Your task to perform on an android device: delete the emails in spam in the gmail app Image 0: 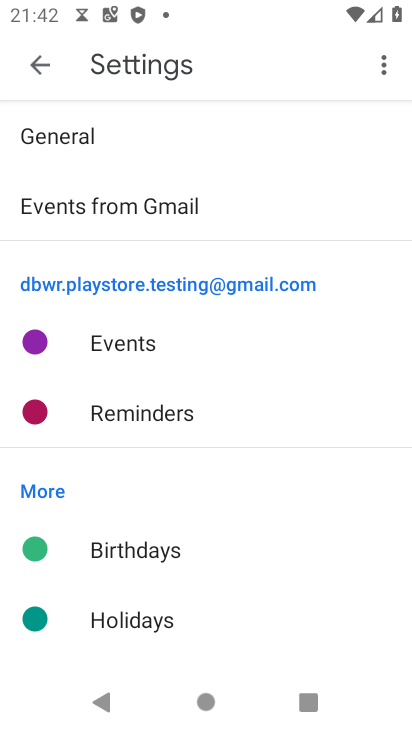
Step 0: press home button
Your task to perform on an android device: delete the emails in spam in the gmail app Image 1: 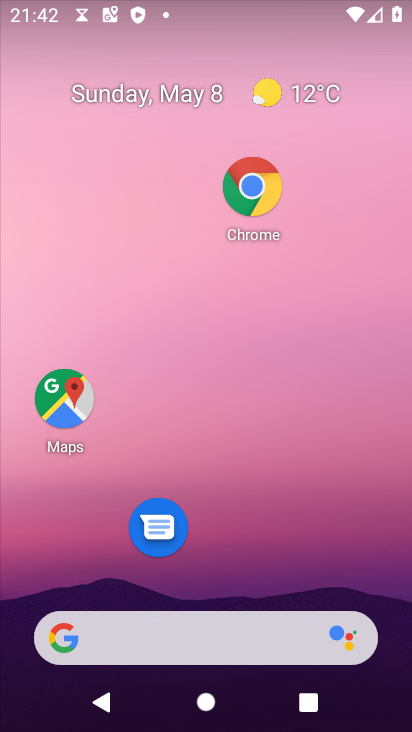
Step 1: drag from (261, 562) to (283, 211)
Your task to perform on an android device: delete the emails in spam in the gmail app Image 2: 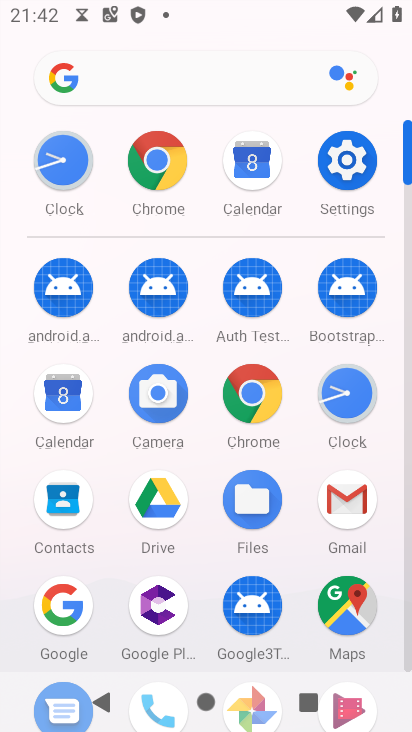
Step 2: click (343, 499)
Your task to perform on an android device: delete the emails in spam in the gmail app Image 3: 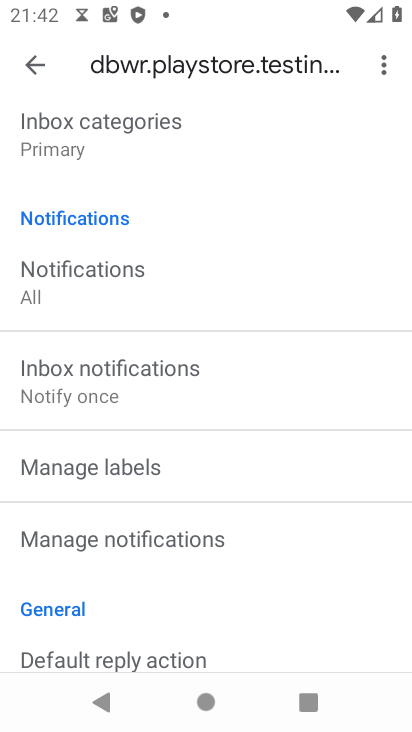
Step 3: click (30, 62)
Your task to perform on an android device: delete the emails in spam in the gmail app Image 4: 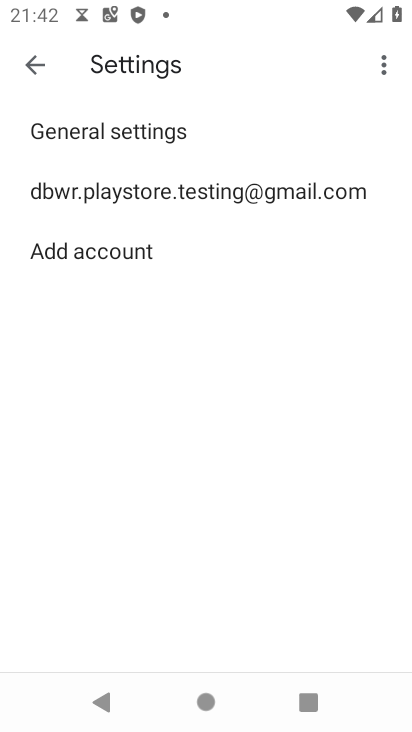
Step 4: click (30, 62)
Your task to perform on an android device: delete the emails in spam in the gmail app Image 5: 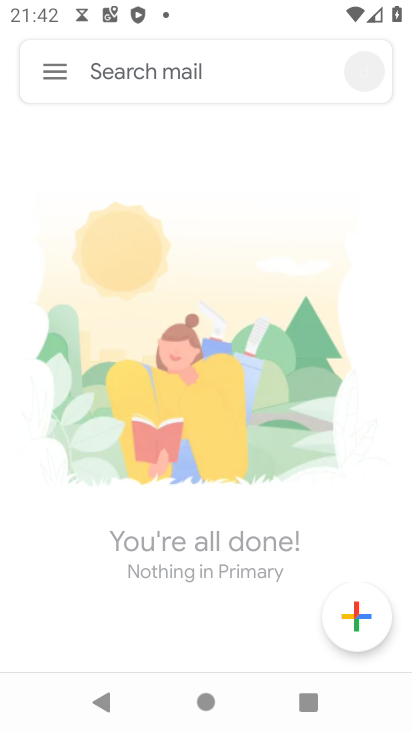
Step 5: click (54, 74)
Your task to perform on an android device: delete the emails in spam in the gmail app Image 6: 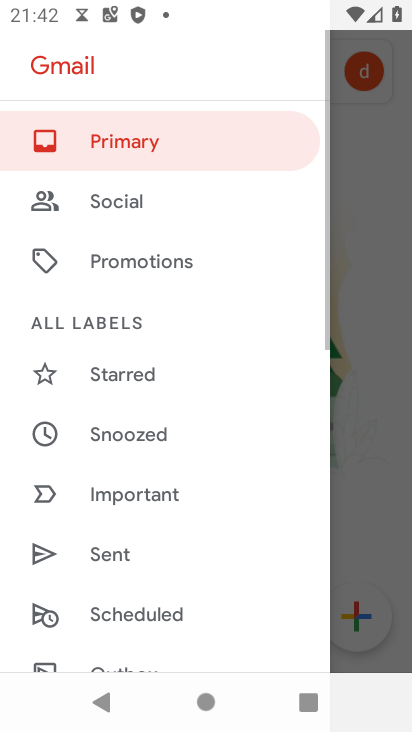
Step 6: drag from (182, 589) to (181, 502)
Your task to perform on an android device: delete the emails in spam in the gmail app Image 7: 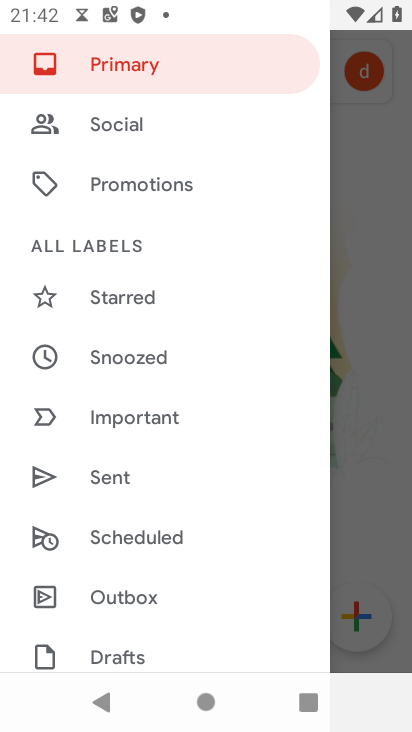
Step 7: drag from (154, 602) to (168, 359)
Your task to perform on an android device: delete the emails in spam in the gmail app Image 8: 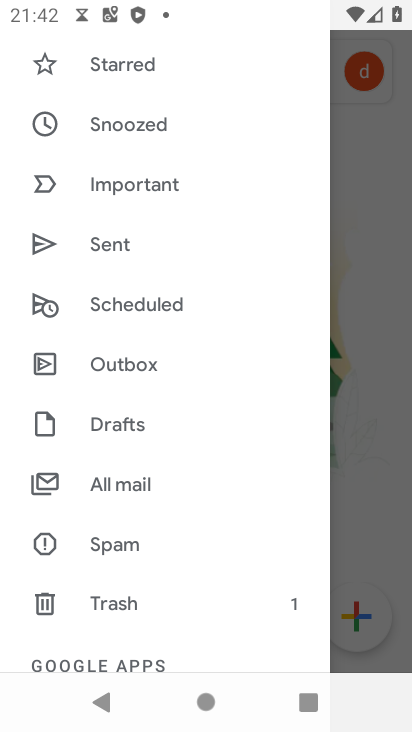
Step 8: click (128, 540)
Your task to perform on an android device: delete the emails in spam in the gmail app Image 9: 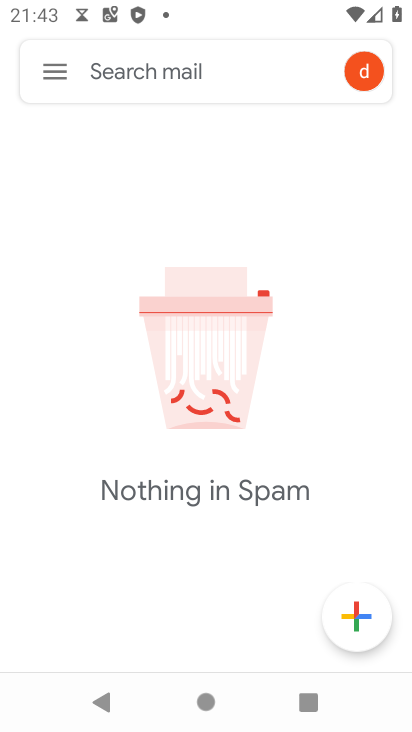
Step 9: task complete